Your task to perform on an android device: see creations saved in the google photos Image 0: 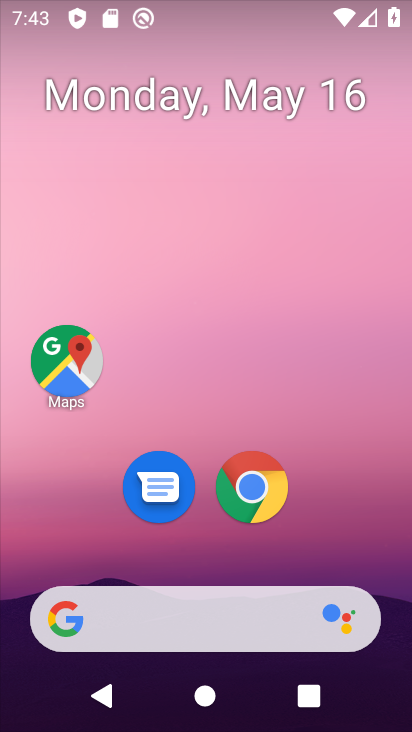
Step 0: drag from (364, 524) to (306, 47)
Your task to perform on an android device: see creations saved in the google photos Image 1: 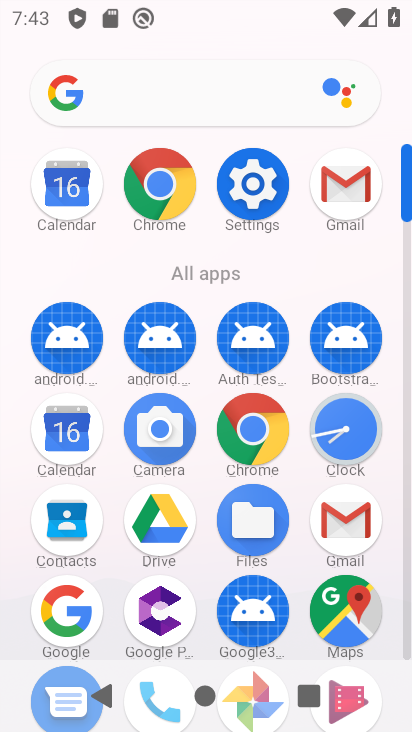
Step 1: drag from (208, 476) to (195, 294)
Your task to perform on an android device: see creations saved in the google photos Image 2: 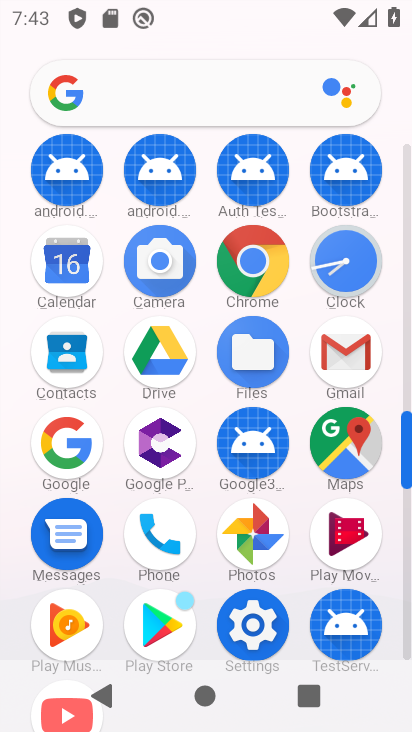
Step 2: click (237, 526)
Your task to perform on an android device: see creations saved in the google photos Image 3: 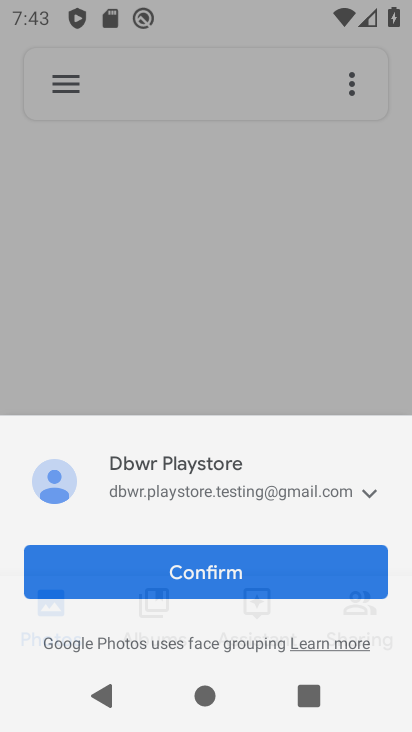
Step 3: click (69, 84)
Your task to perform on an android device: see creations saved in the google photos Image 4: 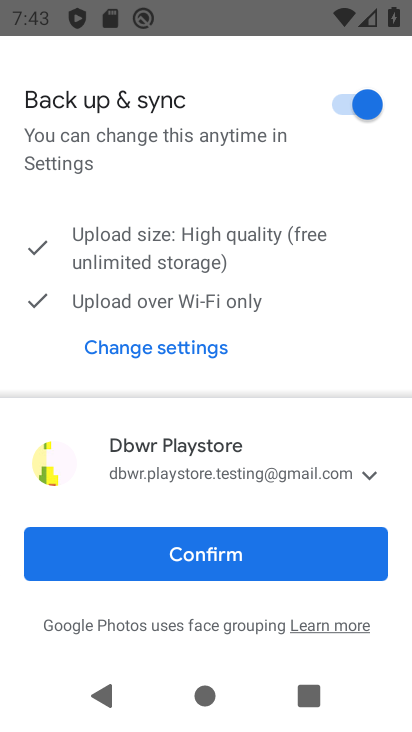
Step 4: click (221, 545)
Your task to perform on an android device: see creations saved in the google photos Image 5: 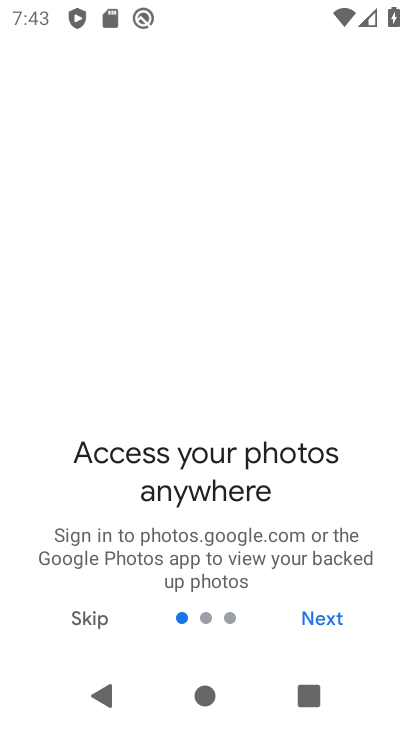
Step 5: click (199, 56)
Your task to perform on an android device: see creations saved in the google photos Image 6: 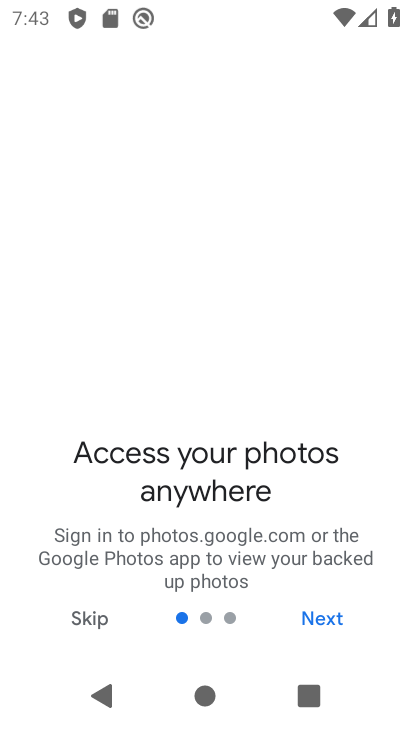
Step 6: click (328, 617)
Your task to perform on an android device: see creations saved in the google photos Image 7: 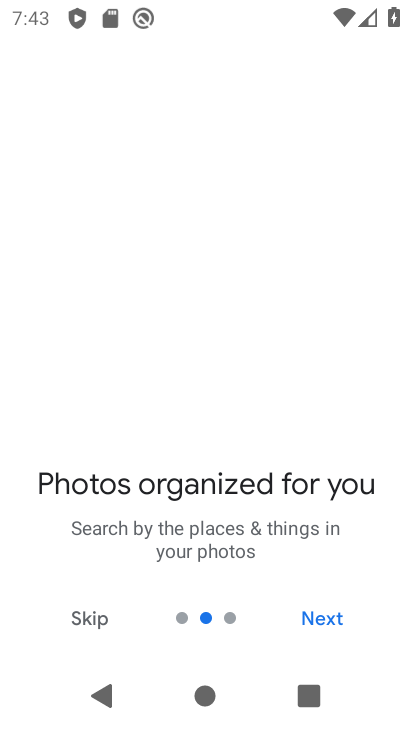
Step 7: click (328, 617)
Your task to perform on an android device: see creations saved in the google photos Image 8: 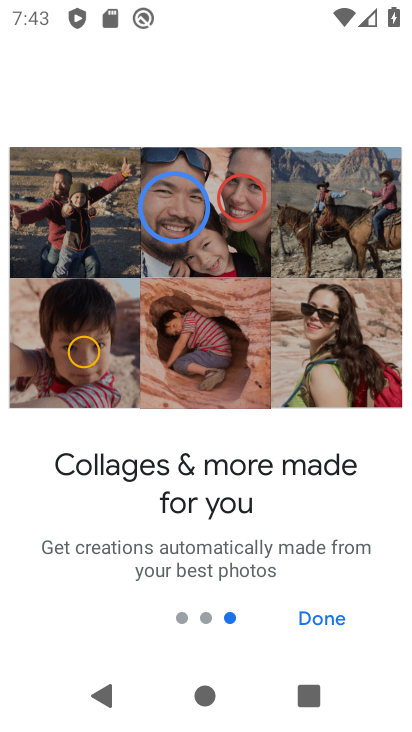
Step 8: click (328, 617)
Your task to perform on an android device: see creations saved in the google photos Image 9: 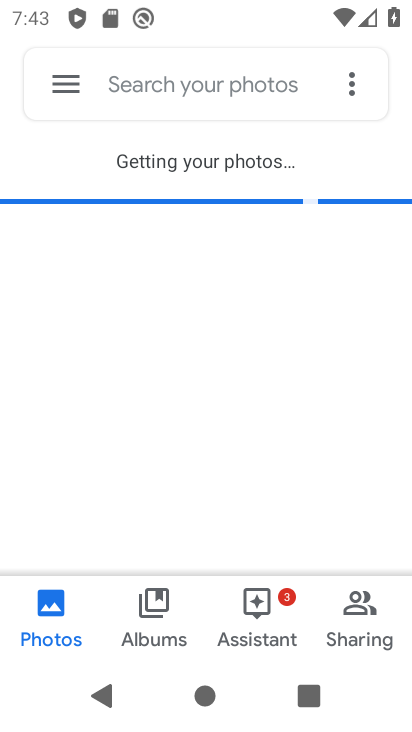
Step 9: click (207, 79)
Your task to perform on an android device: see creations saved in the google photos Image 10: 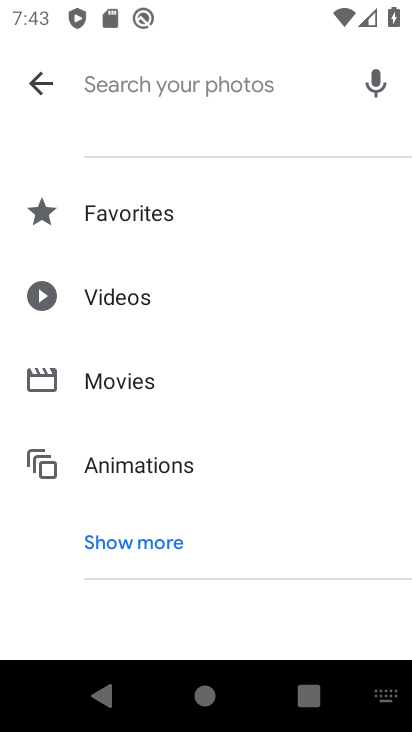
Step 10: click (161, 532)
Your task to perform on an android device: see creations saved in the google photos Image 11: 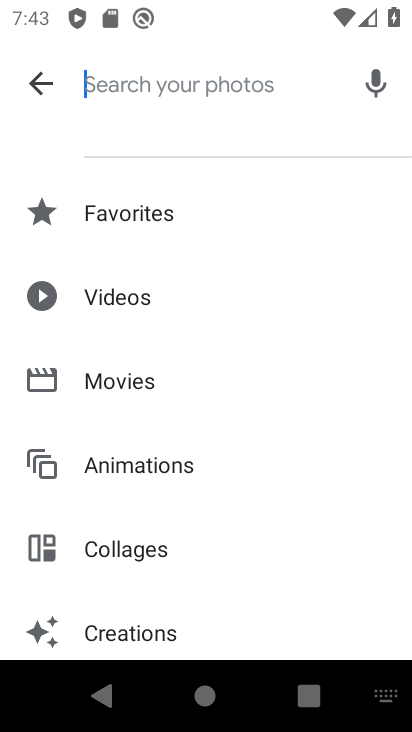
Step 11: click (144, 628)
Your task to perform on an android device: see creations saved in the google photos Image 12: 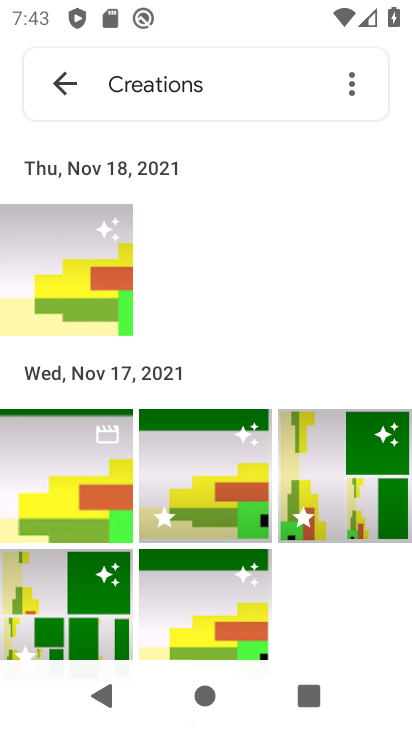
Step 12: task complete